Your task to perform on an android device: change notifications settings Image 0: 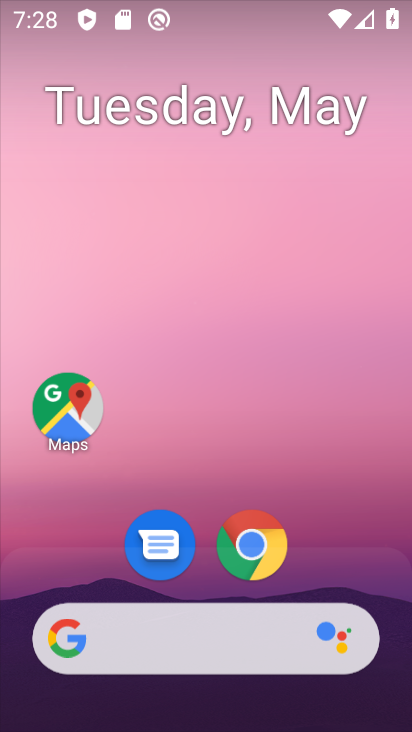
Step 0: drag from (330, 533) to (253, 0)
Your task to perform on an android device: change notifications settings Image 1: 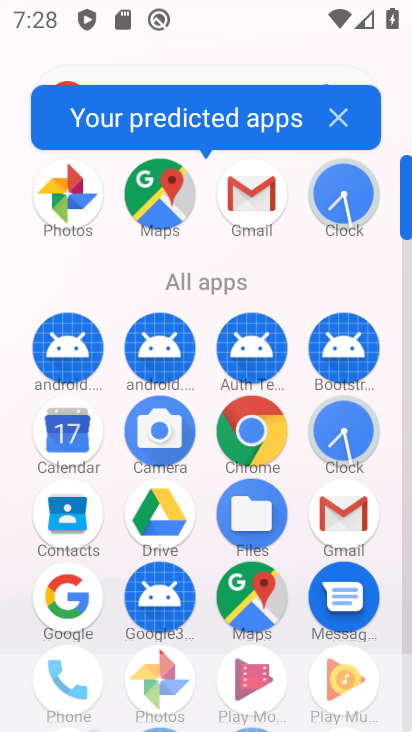
Step 1: drag from (289, 303) to (295, 0)
Your task to perform on an android device: change notifications settings Image 2: 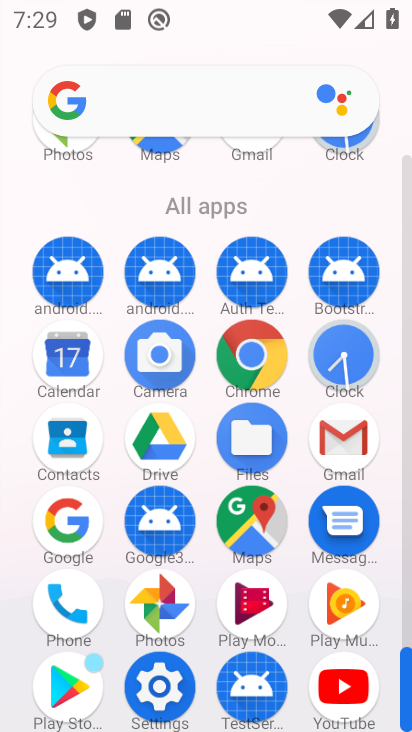
Step 2: click (160, 707)
Your task to perform on an android device: change notifications settings Image 3: 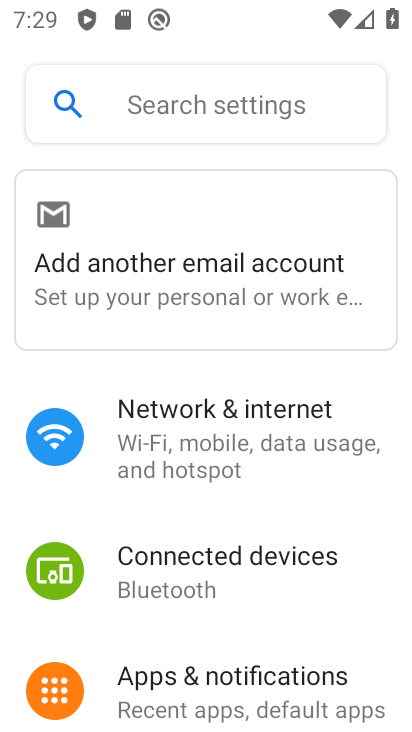
Step 3: click (281, 677)
Your task to perform on an android device: change notifications settings Image 4: 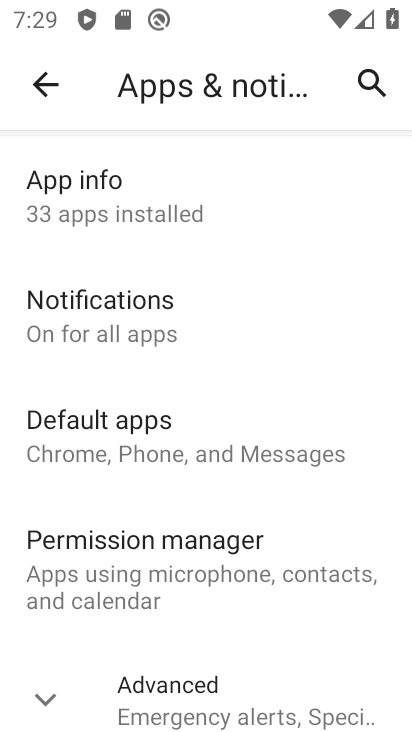
Step 4: drag from (281, 531) to (310, 10)
Your task to perform on an android device: change notifications settings Image 5: 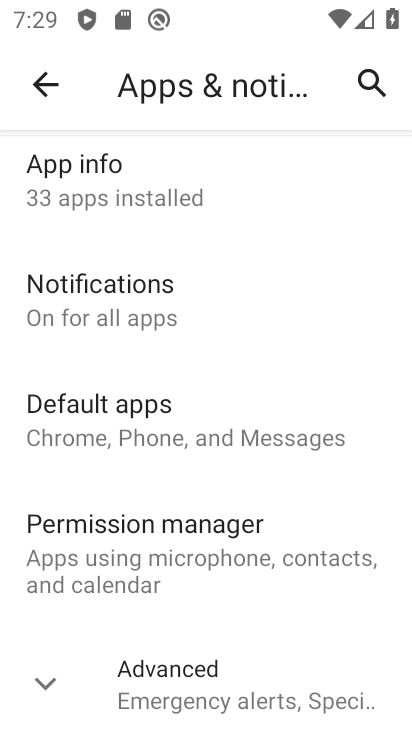
Step 5: click (172, 318)
Your task to perform on an android device: change notifications settings Image 6: 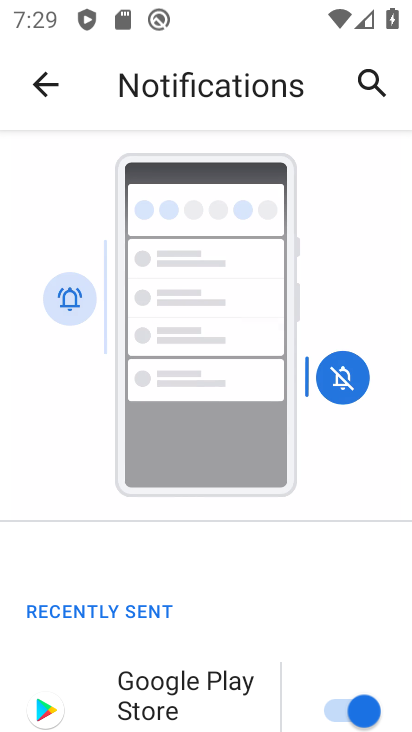
Step 6: drag from (263, 610) to (249, 129)
Your task to perform on an android device: change notifications settings Image 7: 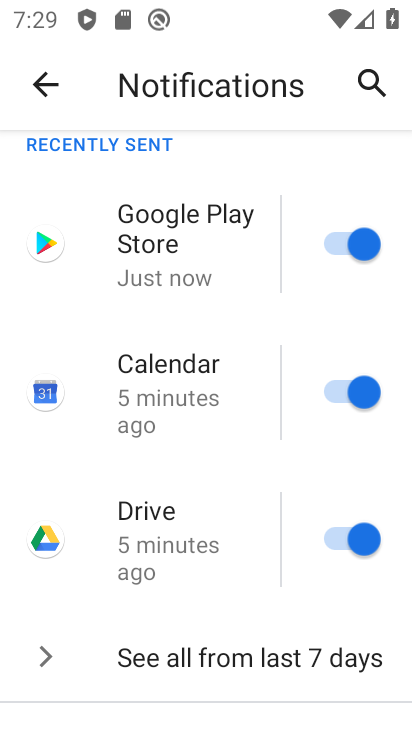
Step 7: drag from (239, 677) to (251, 224)
Your task to perform on an android device: change notifications settings Image 8: 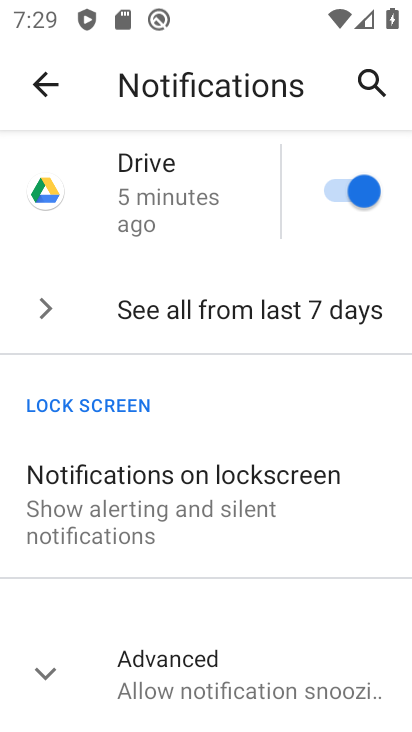
Step 8: drag from (203, 605) to (198, 333)
Your task to perform on an android device: change notifications settings Image 9: 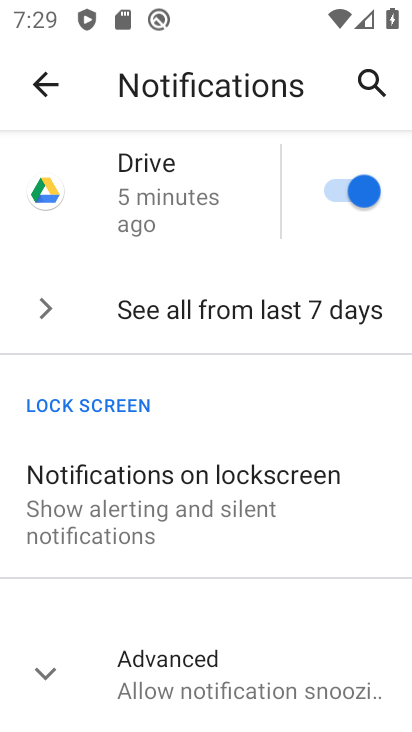
Step 9: click (220, 645)
Your task to perform on an android device: change notifications settings Image 10: 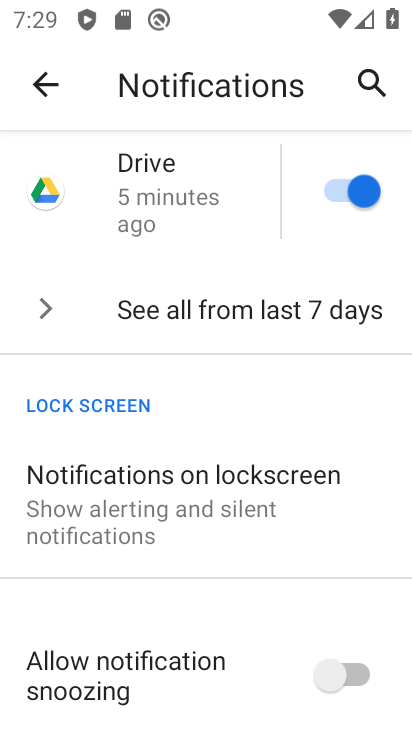
Step 10: drag from (227, 588) to (219, 236)
Your task to perform on an android device: change notifications settings Image 11: 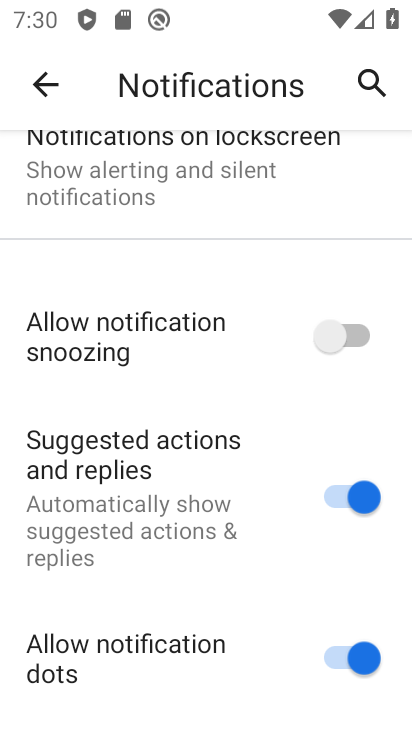
Step 11: click (333, 483)
Your task to perform on an android device: change notifications settings Image 12: 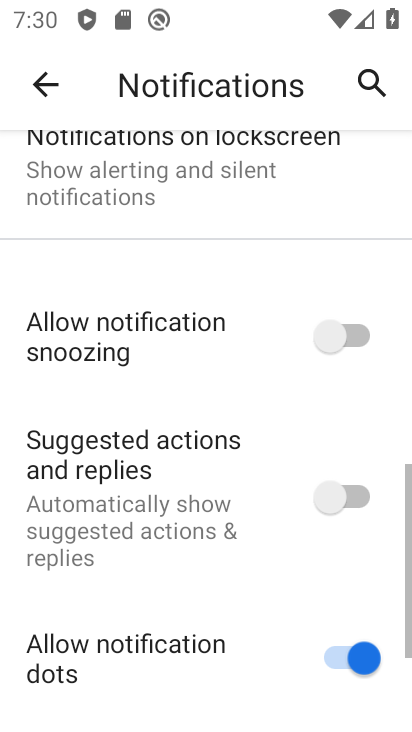
Step 12: click (361, 656)
Your task to perform on an android device: change notifications settings Image 13: 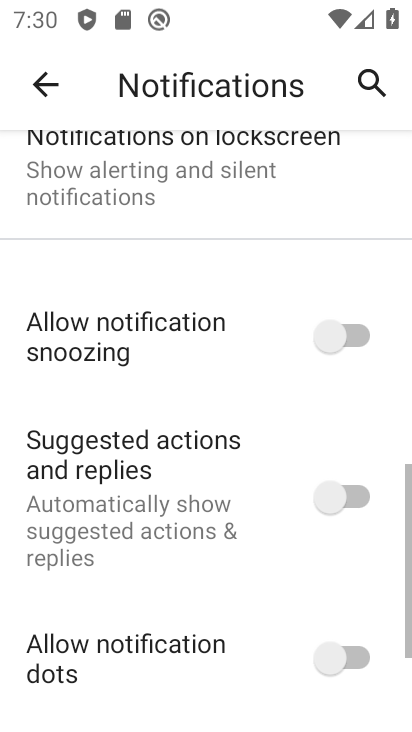
Step 13: click (331, 350)
Your task to perform on an android device: change notifications settings Image 14: 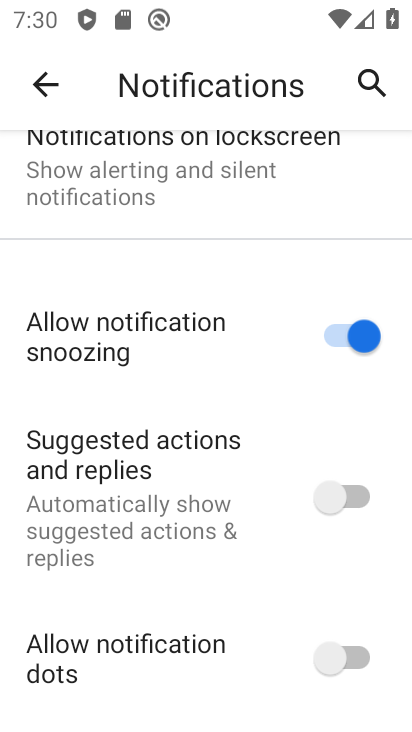
Step 14: task complete